Your task to perform on an android device: change your default location settings in chrome Image 0: 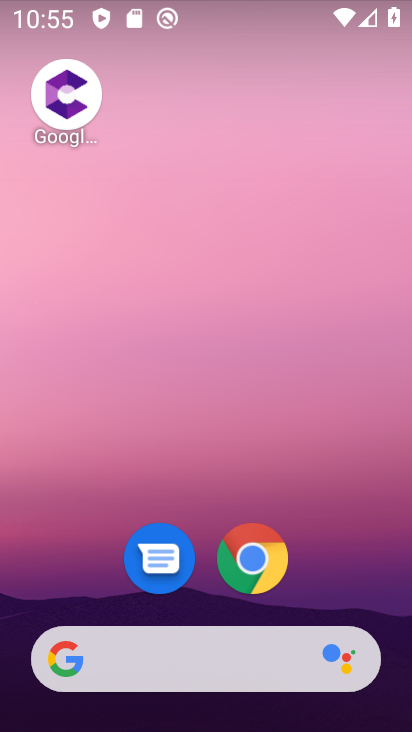
Step 0: drag from (394, 590) to (386, 199)
Your task to perform on an android device: change your default location settings in chrome Image 1: 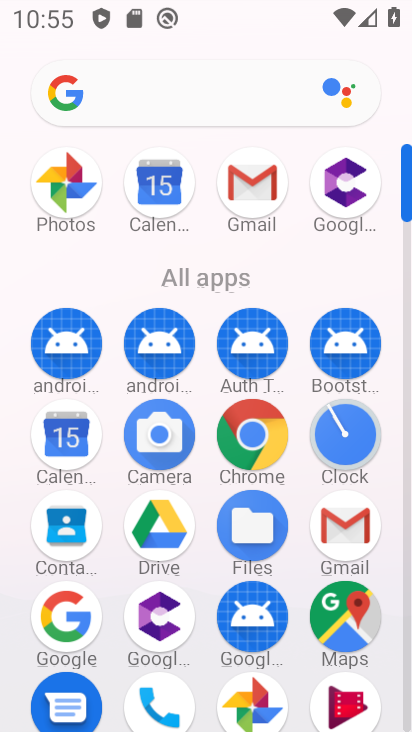
Step 1: drag from (400, 605) to (409, 390)
Your task to perform on an android device: change your default location settings in chrome Image 2: 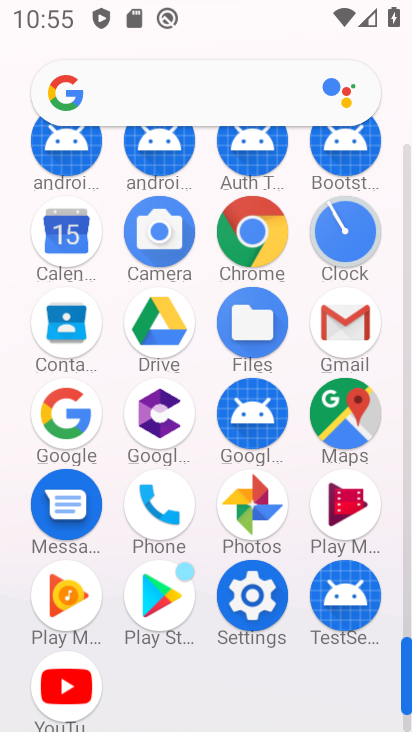
Step 2: click (240, 602)
Your task to perform on an android device: change your default location settings in chrome Image 3: 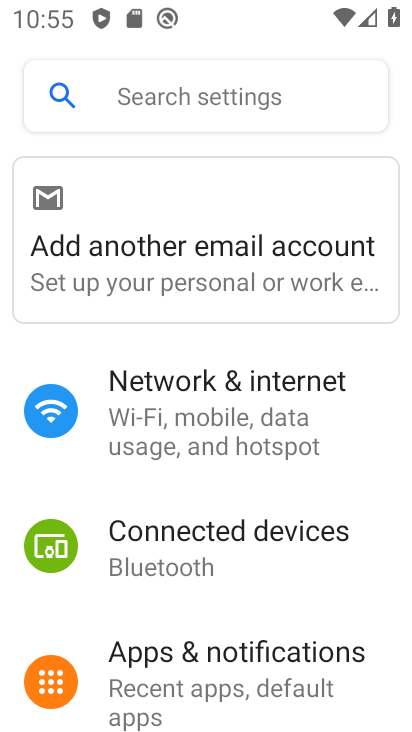
Step 3: press home button
Your task to perform on an android device: change your default location settings in chrome Image 4: 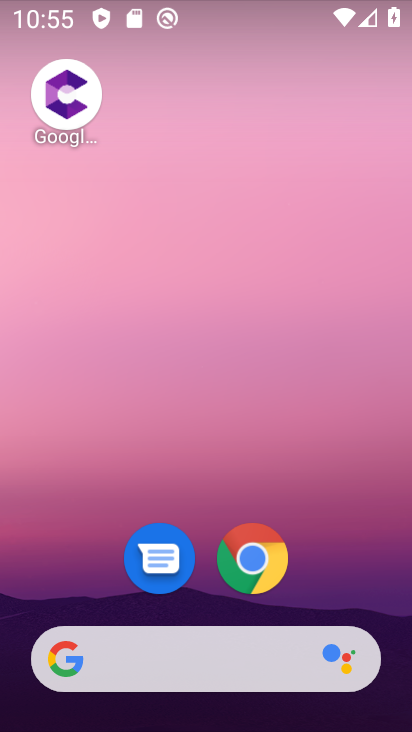
Step 4: drag from (316, 507) to (301, 238)
Your task to perform on an android device: change your default location settings in chrome Image 5: 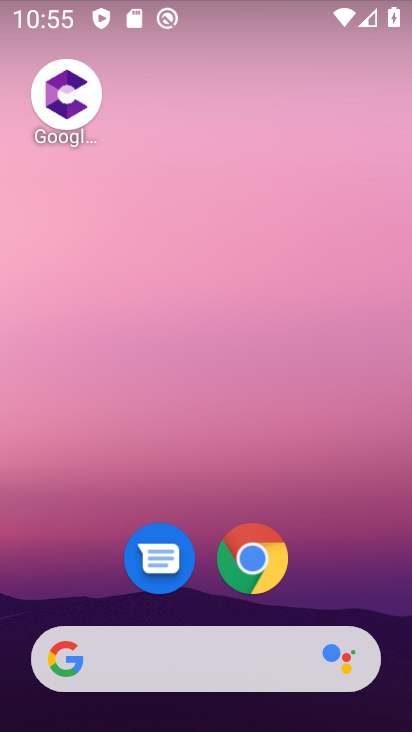
Step 5: click (264, 562)
Your task to perform on an android device: change your default location settings in chrome Image 6: 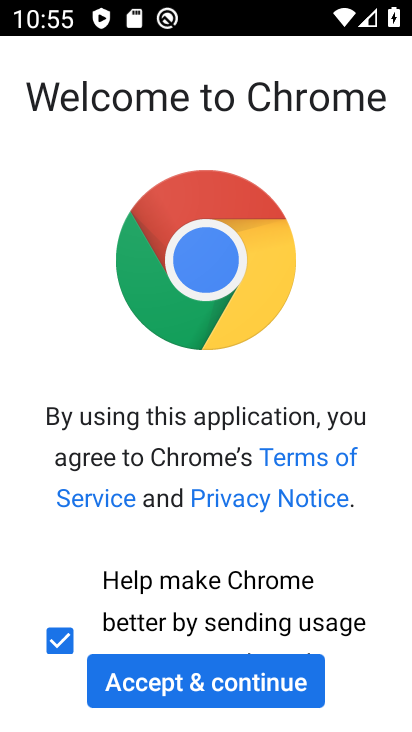
Step 6: click (265, 697)
Your task to perform on an android device: change your default location settings in chrome Image 7: 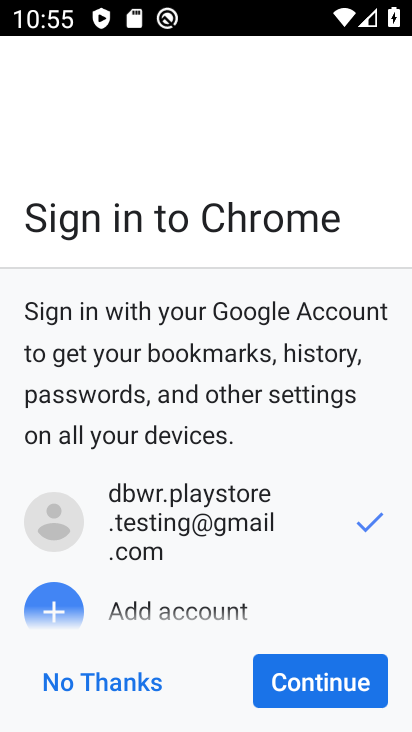
Step 7: click (290, 680)
Your task to perform on an android device: change your default location settings in chrome Image 8: 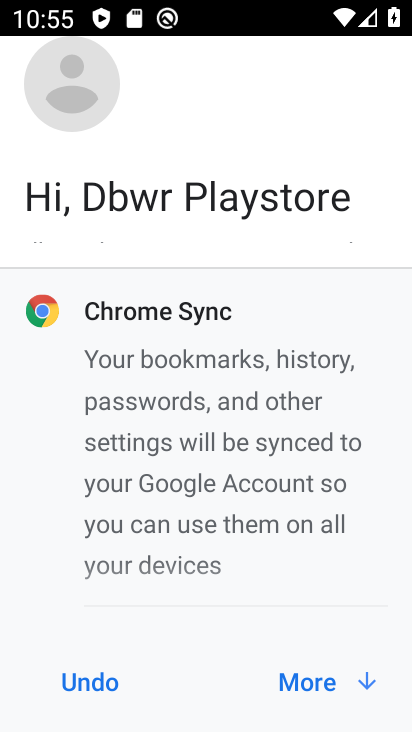
Step 8: click (301, 683)
Your task to perform on an android device: change your default location settings in chrome Image 9: 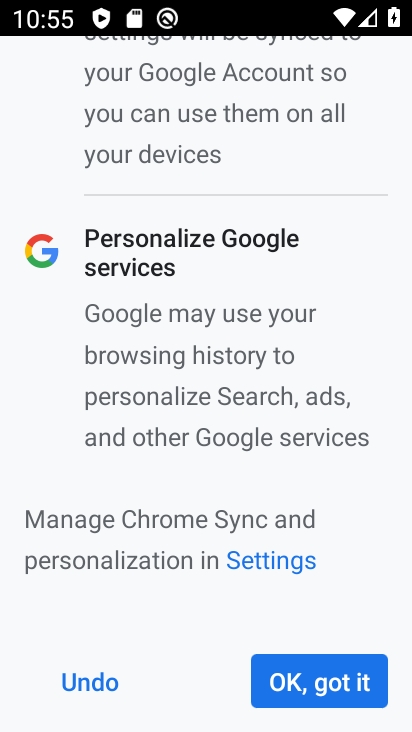
Step 9: click (315, 690)
Your task to perform on an android device: change your default location settings in chrome Image 10: 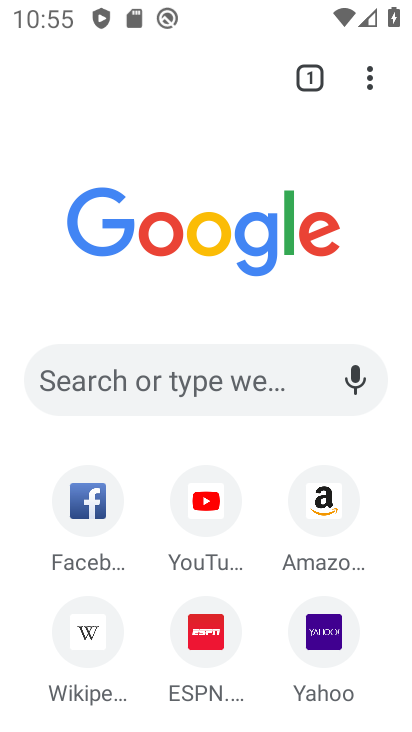
Step 10: click (369, 77)
Your task to perform on an android device: change your default location settings in chrome Image 11: 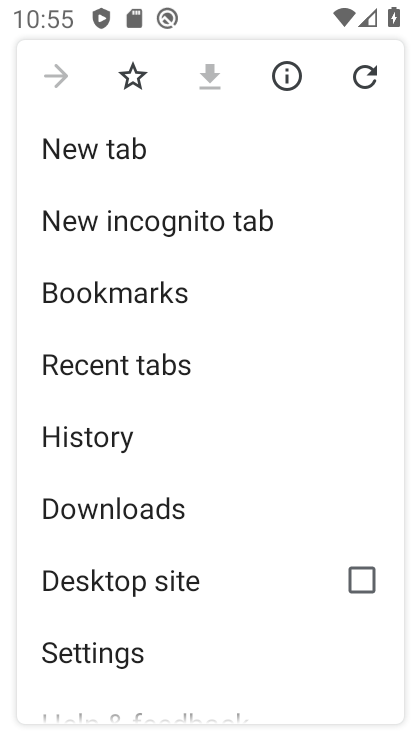
Step 11: click (141, 649)
Your task to perform on an android device: change your default location settings in chrome Image 12: 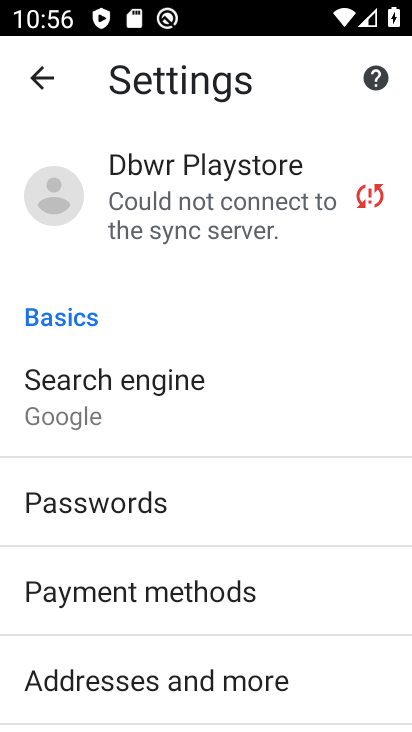
Step 12: drag from (339, 646) to (344, 412)
Your task to perform on an android device: change your default location settings in chrome Image 13: 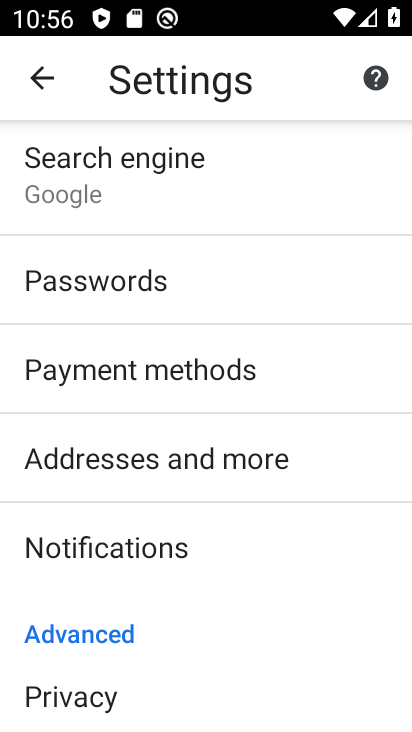
Step 13: drag from (336, 661) to (341, 418)
Your task to perform on an android device: change your default location settings in chrome Image 14: 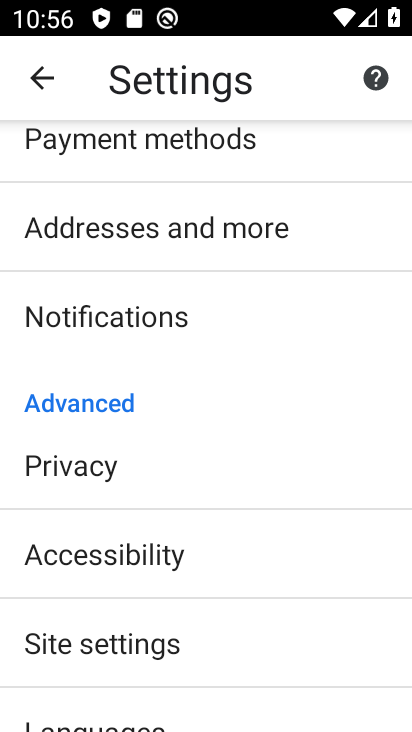
Step 14: drag from (314, 665) to (314, 489)
Your task to perform on an android device: change your default location settings in chrome Image 15: 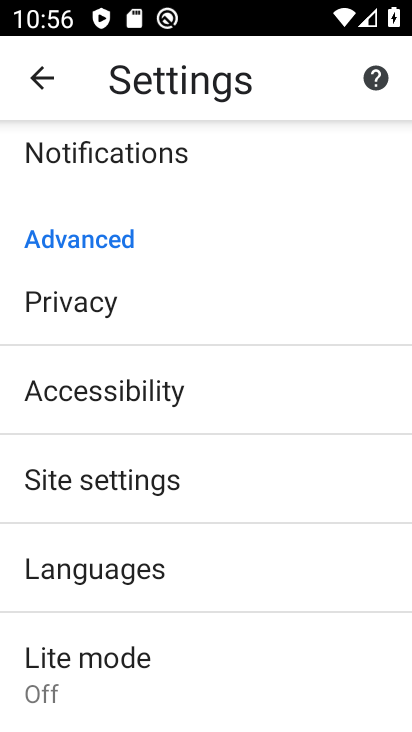
Step 15: click (214, 482)
Your task to perform on an android device: change your default location settings in chrome Image 16: 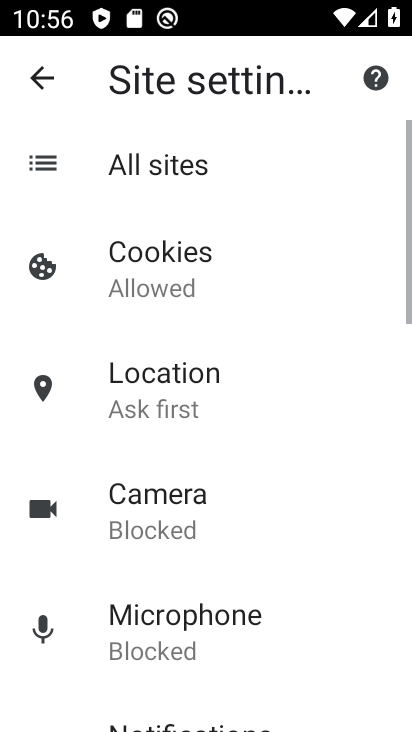
Step 16: drag from (309, 569) to (301, 440)
Your task to perform on an android device: change your default location settings in chrome Image 17: 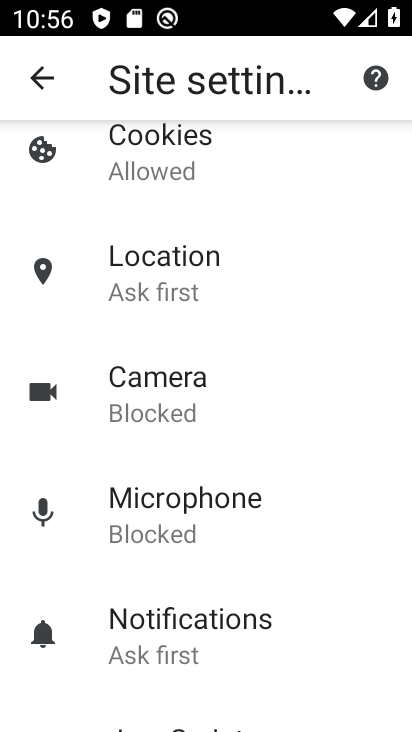
Step 17: drag from (317, 614) to (315, 449)
Your task to perform on an android device: change your default location settings in chrome Image 18: 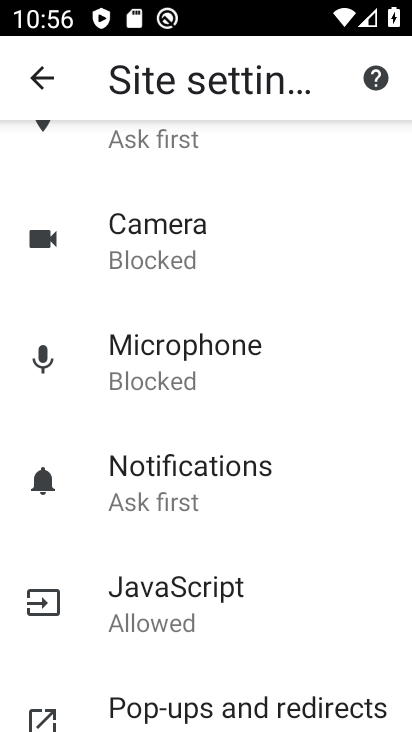
Step 18: drag from (312, 632) to (322, 432)
Your task to perform on an android device: change your default location settings in chrome Image 19: 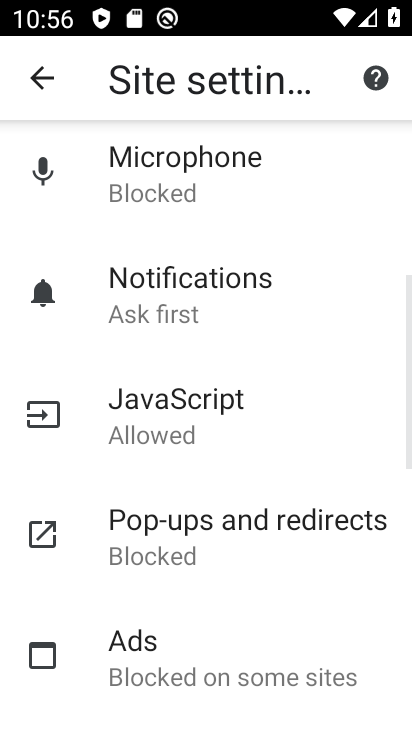
Step 19: drag from (296, 588) to (305, 443)
Your task to perform on an android device: change your default location settings in chrome Image 20: 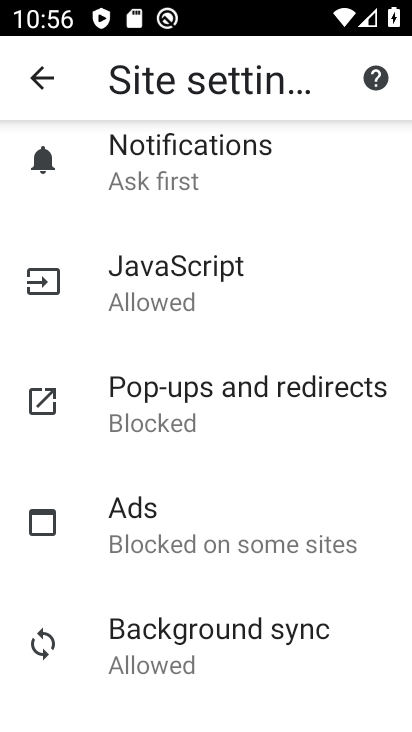
Step 20: drag from (320, 248) to (309, 447)
Your task to perform on an android device: change your default location settings in chrome Image 21: 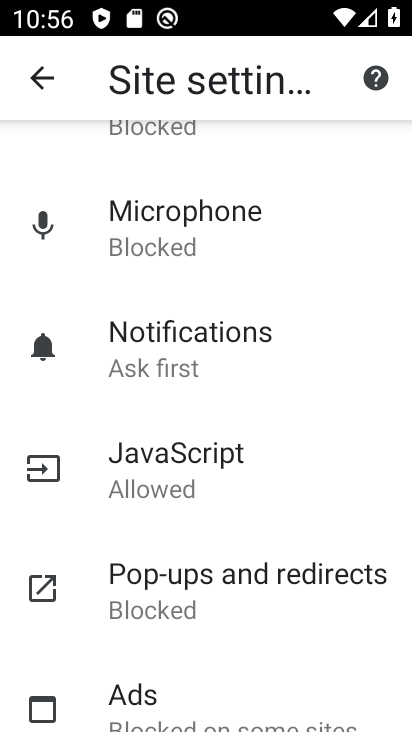
Step 21: drag from (325, 211) to (317, 445)
Your task to perform on an android device: change your default location settings in chrome Image 22: 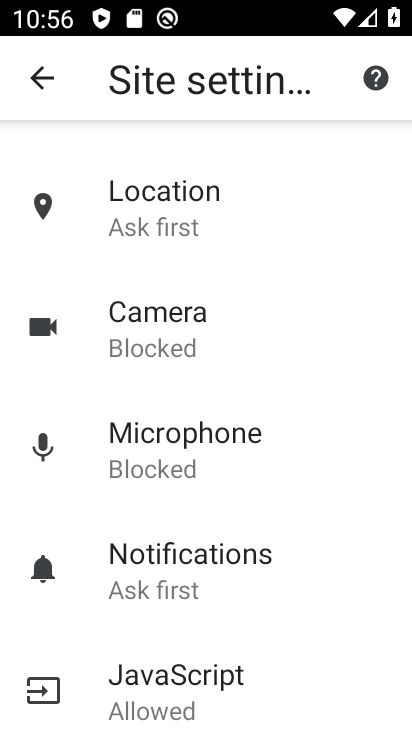
Step 22: click (161, 193)
Your task to perform on an android device: change your default location settings in chrome Image 23: 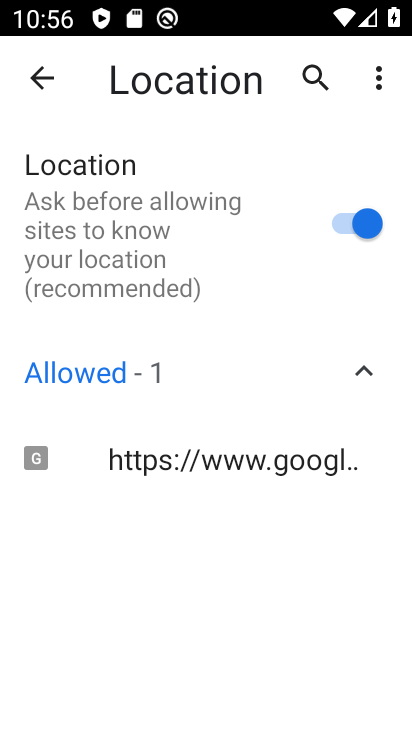
Step 23: click (357, 230)
Your task to perform on an android device: change your default location settings in chrome Image 24: 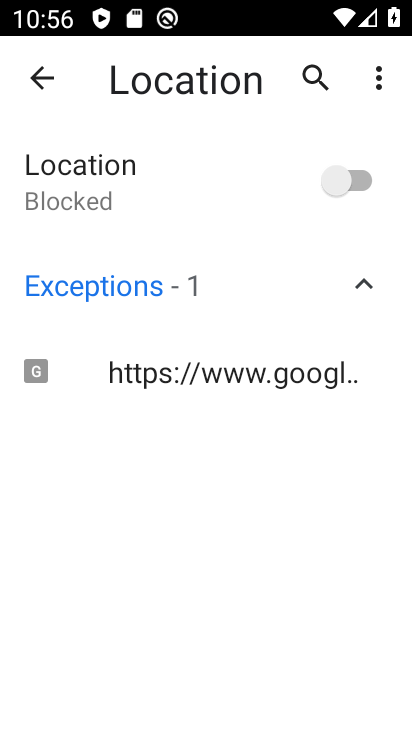
Step 24: task complete